Your task to perform on an android device: Open sound settings Image 0: 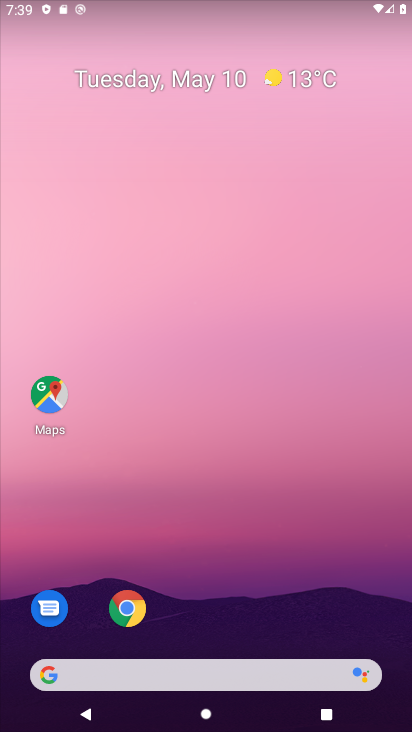
Step 0: press home button
Your task to perform on an android device: Open sound settings Image 1: 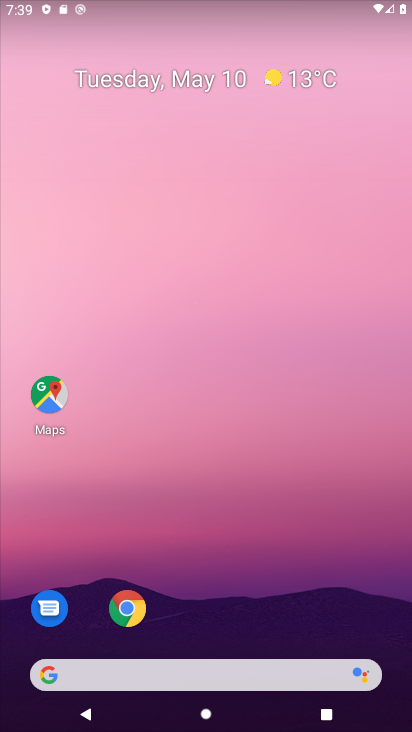
Step 1: drag from (198, 672) to (316, 158)
Your task to perform on an android device: Open sound settings Image 2: 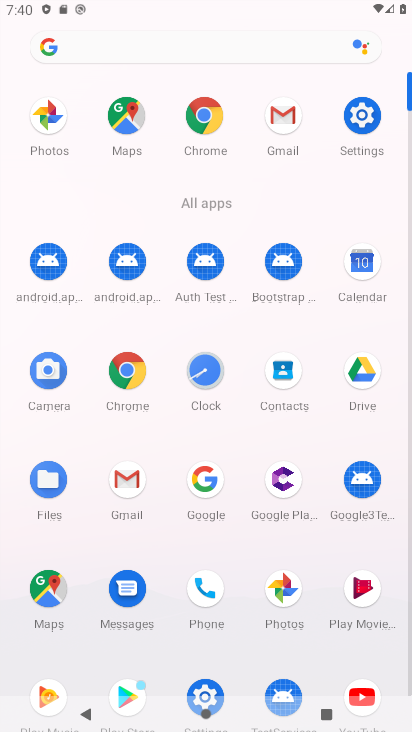
Step 2: click (355, 118)
Your task to perform on an android device: Open sound settings Image 3: 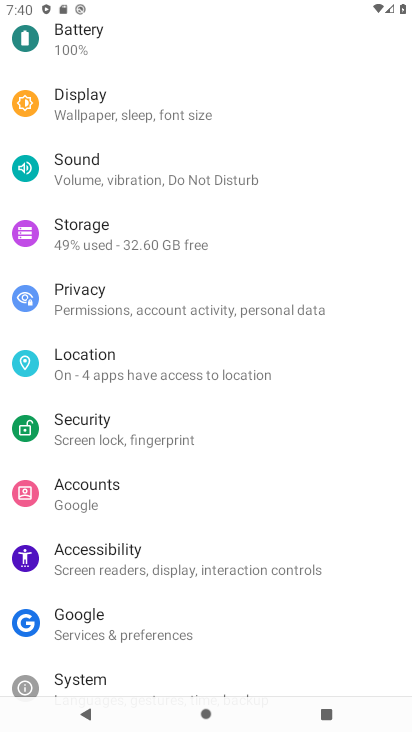
Step 3: click (122, 177)
Your task to perform on an android device: Open sound settings Image 4: 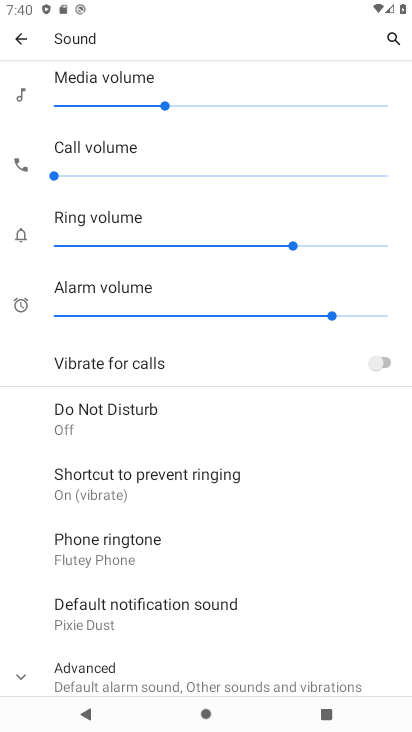
Step 4: task complete